Your task to perform on an android device: Open Reddit.com Image 0: 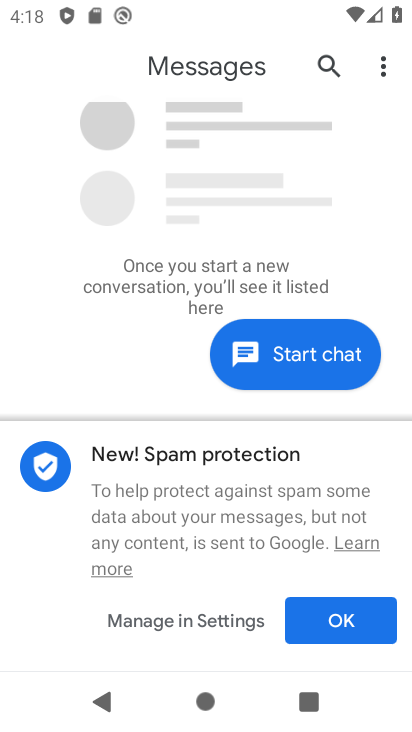
Step 0: press home button
Your task to perform on an android device: Open Reddit.com Image 1: 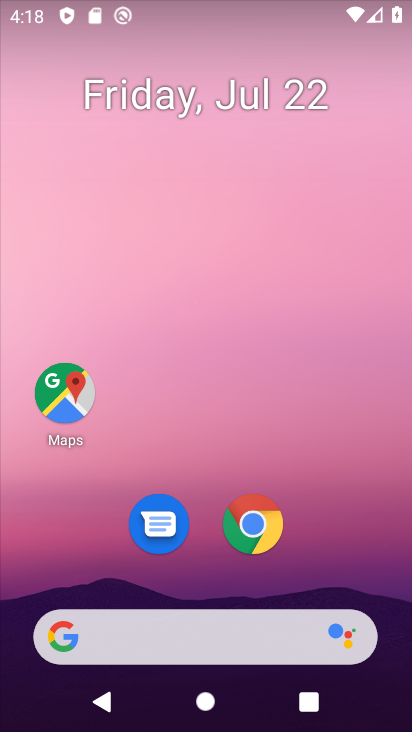
Step 1: click (211, 635)
Your task to perform on an android device: Open Reddit.com Image 2: 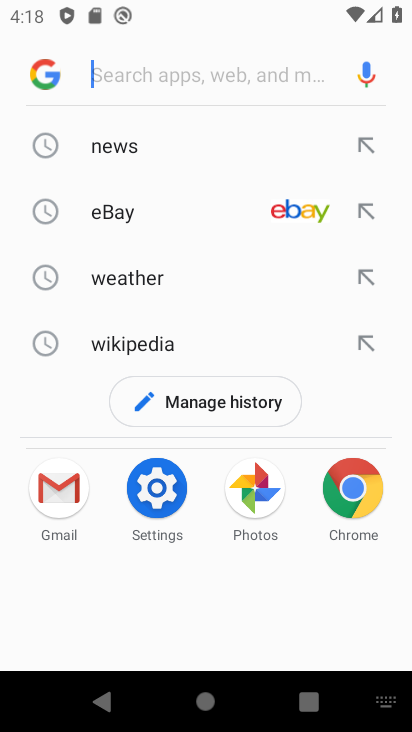
Step 2: type "reddit.com"
Your task to perform on an android device: Open Reddit.com Image 3: 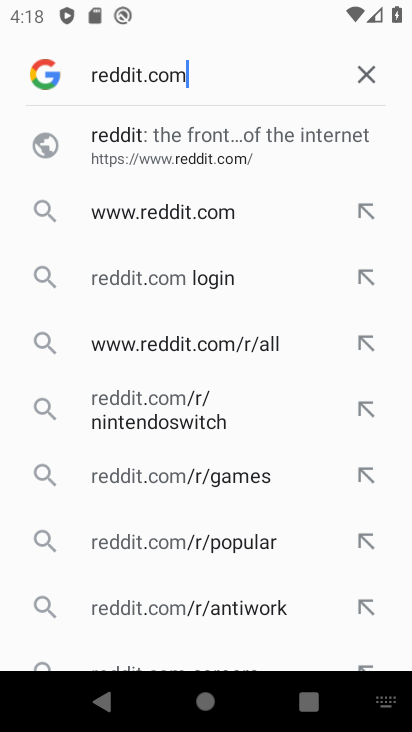
Step 3: click (178, 210)
Your task to perform on an android device: Open Reddit.com Image 4: 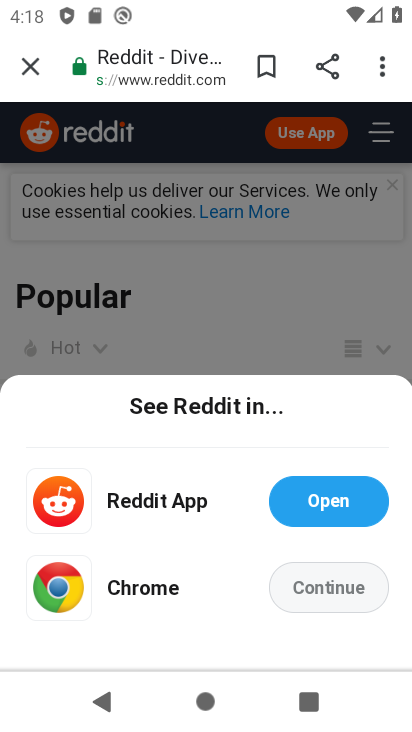
Step 4: click (335, 579)
Your task to perform on an android device: Open Reddit.com Image 5: 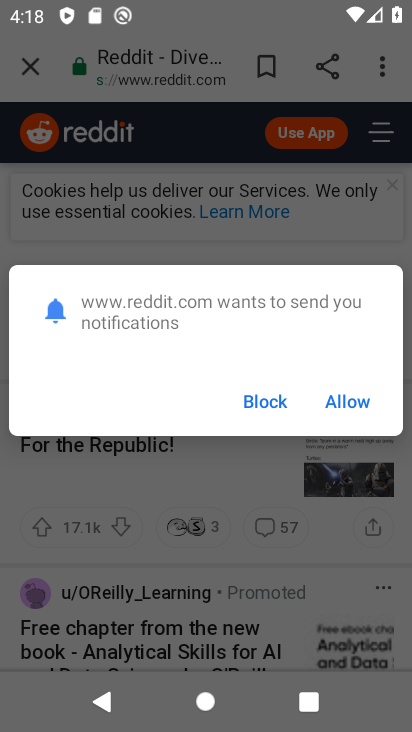
Step 5: click (256, 389)
Your task to perform on an android device: Open Reddit.com Image 6: 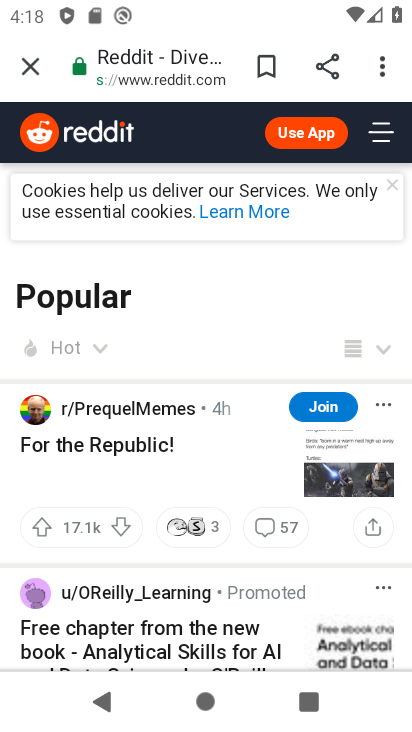
Step 6: task complete